Your task to perform on an android device: change the clock display to show seconds Image 0: 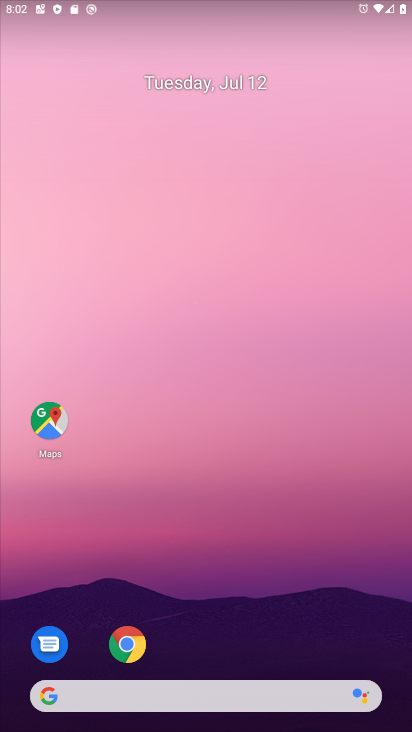
Step 0: drag from (166, 685) to (216, 383)
Your task to perform on an android device: change the clock display to show seconds Image 1: 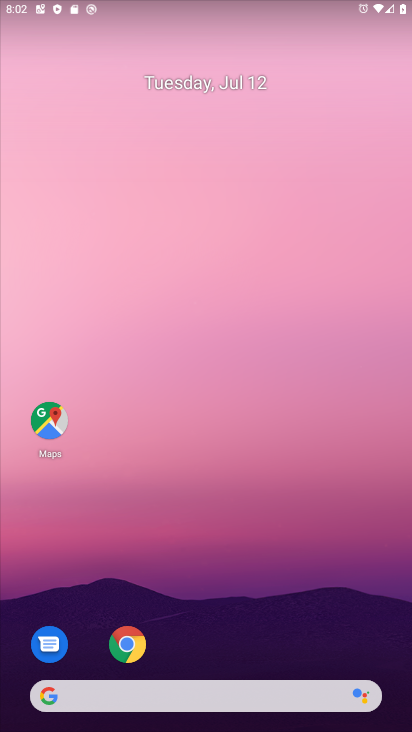
Step 1: drag from (212, 649) to (279, 295)
Your task to perform on an android device: change the clock display to show seconds Image 2: 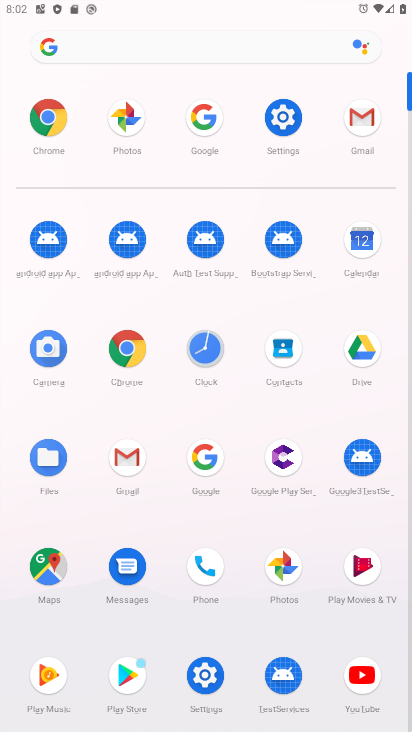
Step 2: click (197, 357)
Your task to perform on an android device: change the clock display to show seconds Image 3: 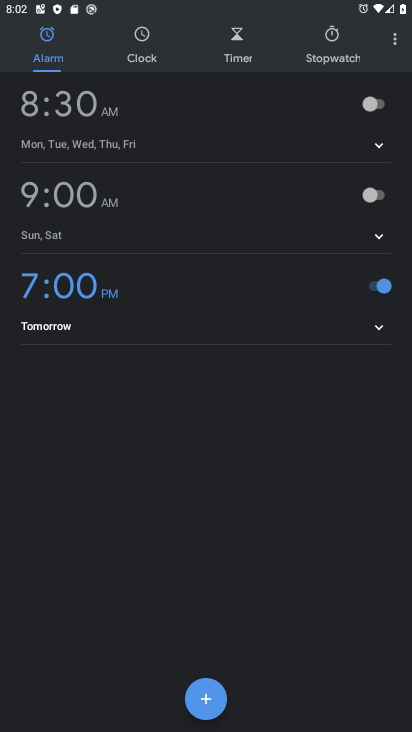
Step 3: click (396, 44)
Your task to perform on an android device: change the clock display to show seconds Image 4: 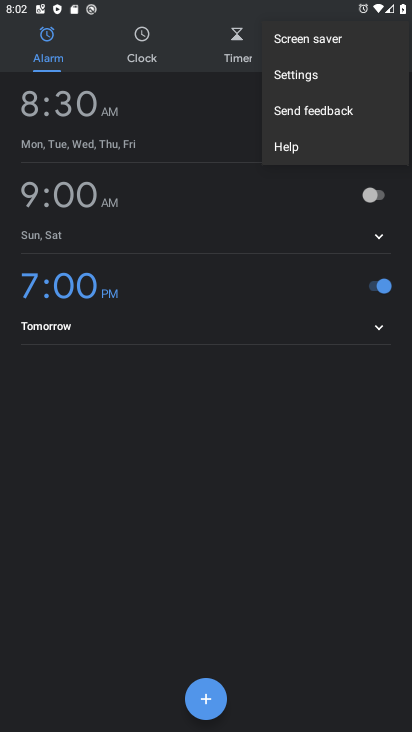
Step 4: click (303, 81)
Your task to perform on an android device: change the clock display to show seconds Image 5: 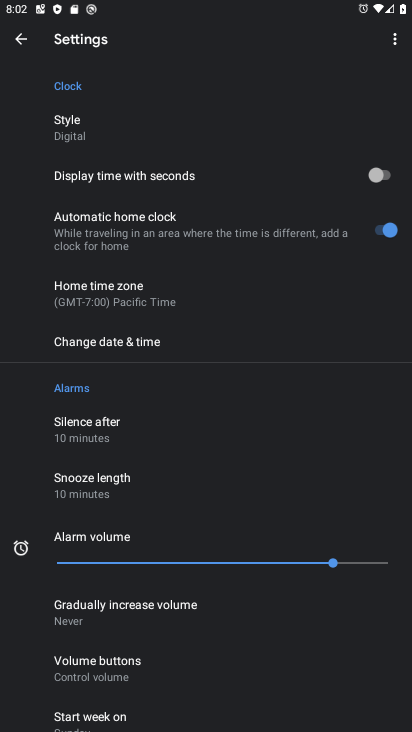
Step 5: task complete